Your task to perform on an android device: Open Chrome and go to settings Image 0: 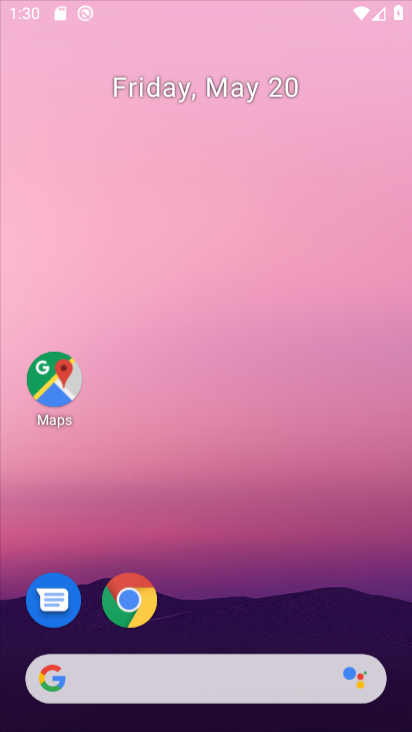
Step 0: click (58, 58)
Your task to perform on an android device: Open Chrome and go to settings Image 1: 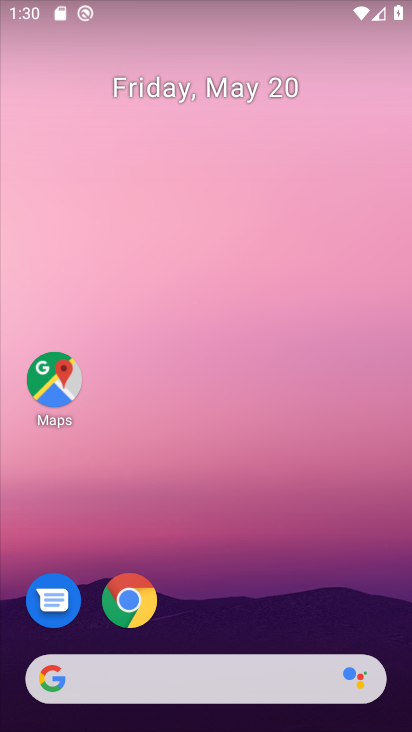
Step 1: click (142, 612)
Your task to perform on an android device: Open Chrome and go to settings Image 2: 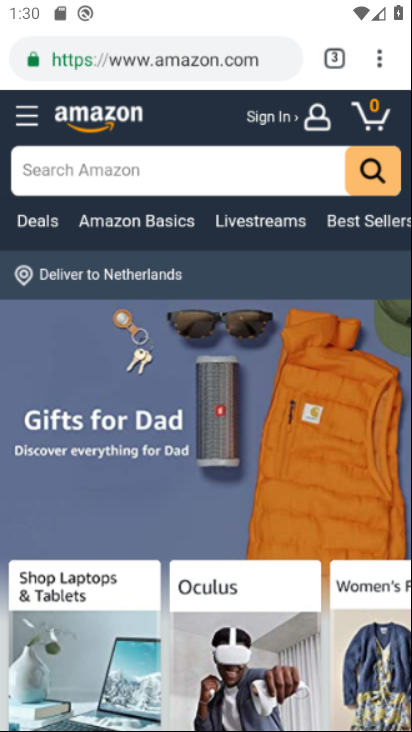
Step 2: click (379, 48)
Your task to perform on an android device: Open Chrome and go to settings Image 3: 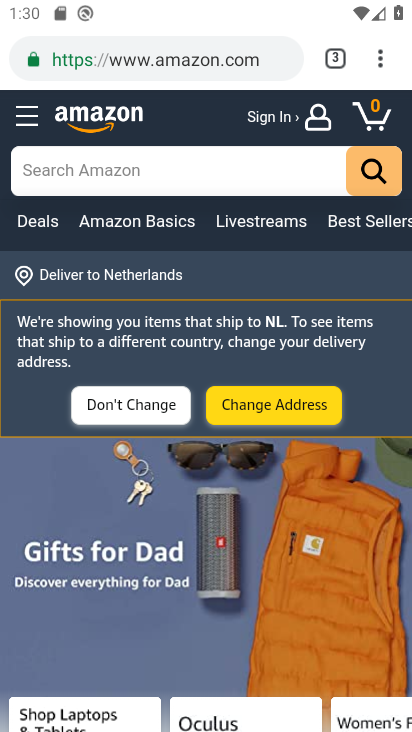
Step 3: click (368, 61)
Your task to perform on an android device: Open Chrome and go to settings Image 4: 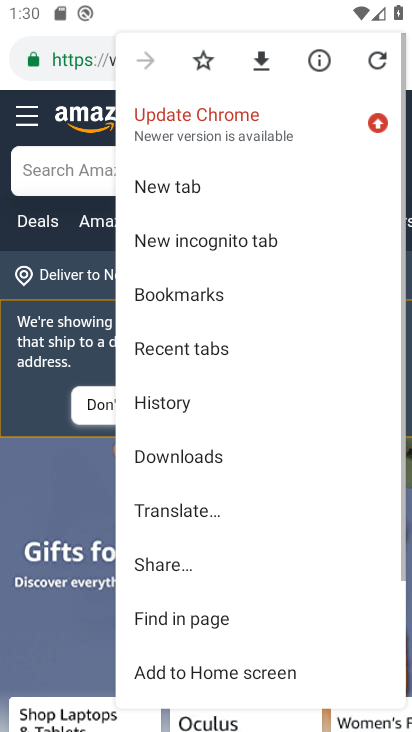
Step 4: drag from (276, 577) to (254, 69)
Your task to perform on an android device: Open Chrome and go to settings Image 5: 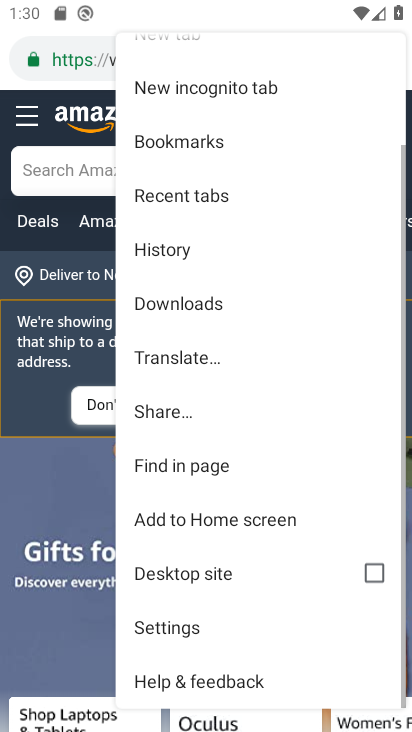
Step 5: click (190, 625)
Your task to perform on an android device: Open Chrome and go to settings Image 6: 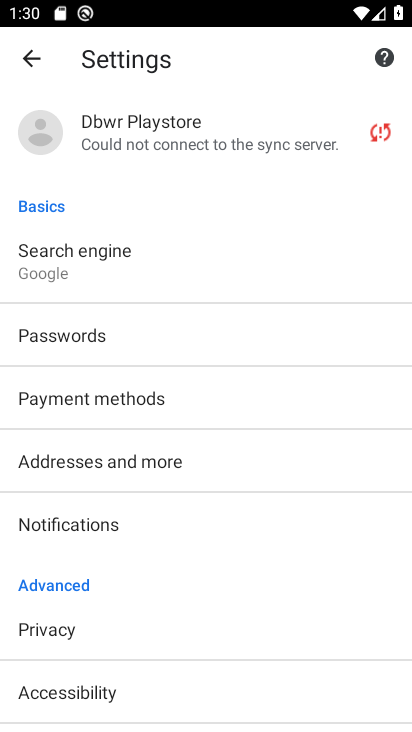
Step 6: task complete